Your task to perform on an android device: check the backup settings in the google photos Image 0: 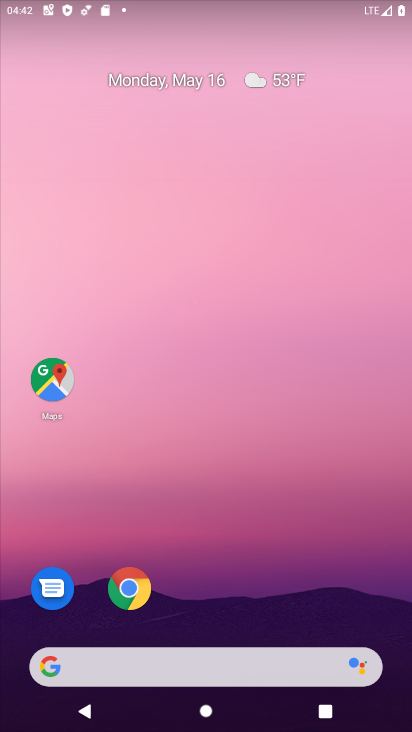
Step 0: drag from (193, 569) to (149, 18)
Your task to perform on an android device: check the backup settings in the google photos Image 1: 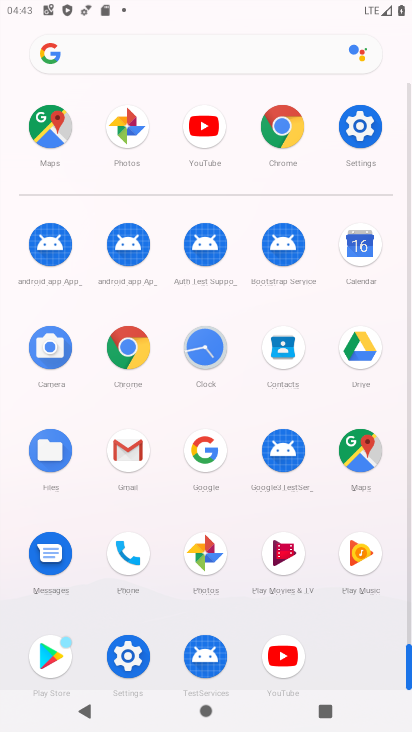
Step 1: drag from (4, 440) to (26, 197)
Your task to perform on an android device: check the backup settings in the google photos Image 2: 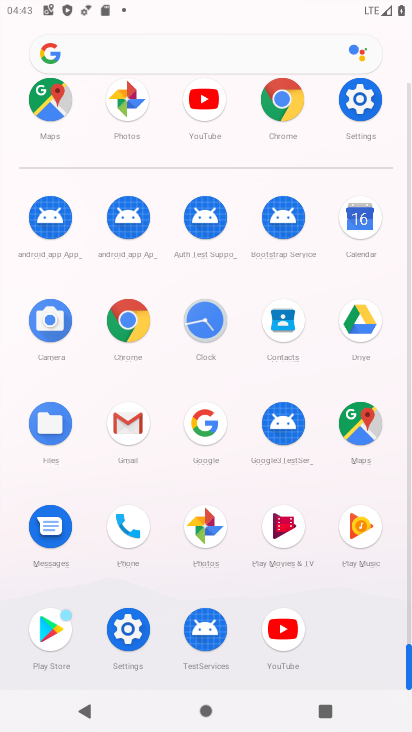
Step 2: click (202, 525)
Your task to perform on an android device: check the backup settings in the google photos Image 3: 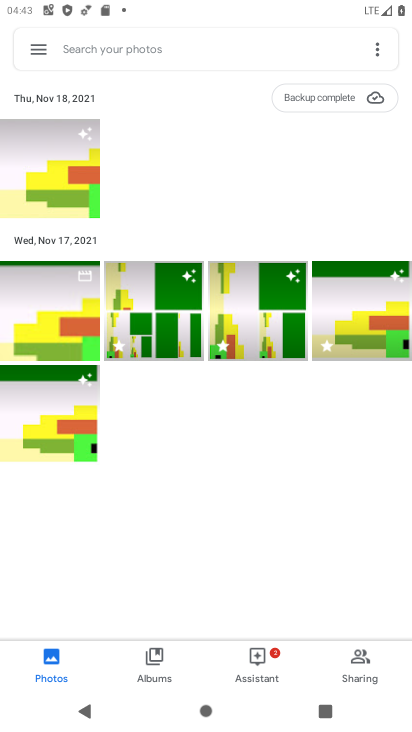
Step 3: click (42, 45)
Your task to perform on an android device: check the backup settings in the google photos Image 4: 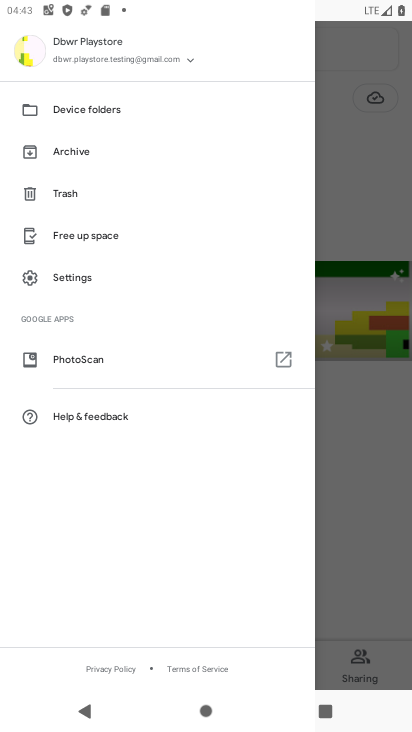
Step 4: click (82, 272)
Your task to perform on an android device: check the backup settings in the google photos Image 5: 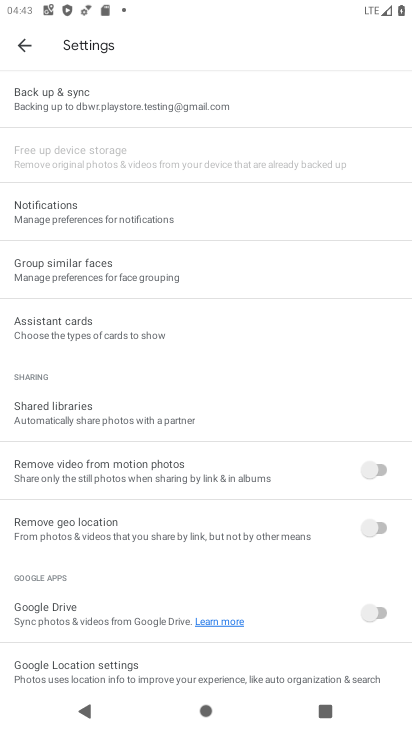
Step 5: task complete